Your task to perform on an android device: install app "PlayWell" Image 0: 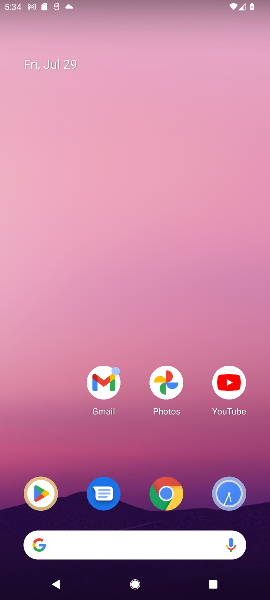
Step 0: drag from (160, 588) to (151, 92)
Your task to perform on an android device: install app "PlayWell" Image 1: 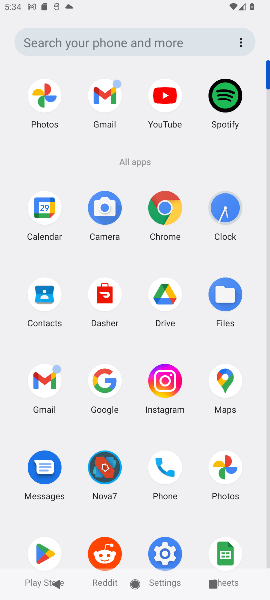
Step 1: click (46, 553)
Your task to perform on an android device: install app "PlayWell" Image 2: 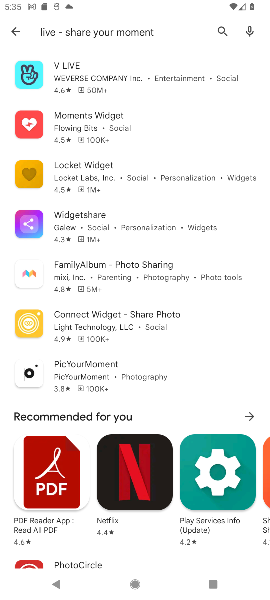
Step 2: click (222, 32)
Your task to perform on an android device: install app "PlayWell" Image 3: 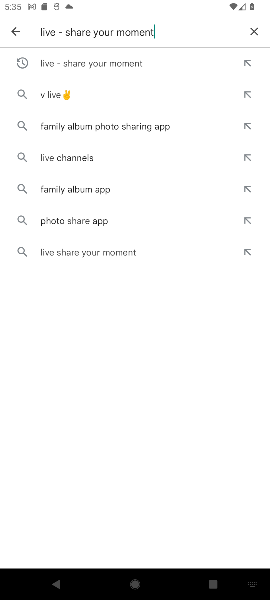
Step 3: click (255, 30)
Your task to perform on an android device: install app "PlayWell" Image 4: 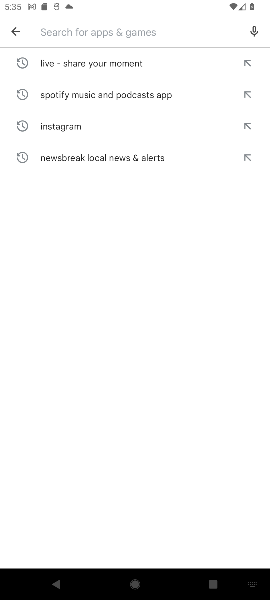
Step 4: type "PlayWell"
Your task to perform on an android device: install app "PlayWell" Image 5: 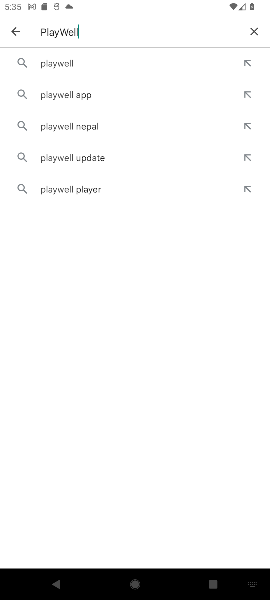
Step 5: click (50, 62)
Your task to perform on an android device: install app "PlayWell" Image 6: 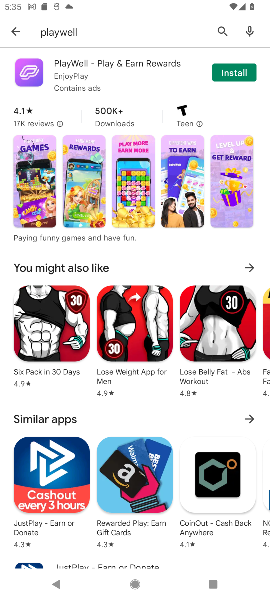
Step 6: click (237, 72)
Your task to perform on an android device: install app "PlayWell" Image 7: 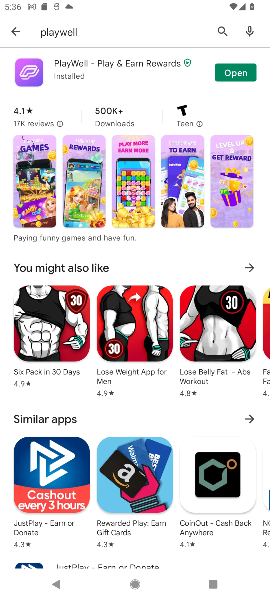
Step 7: task complete